Your task to perform on an android device: Open Chrome and go to settings Image 0: 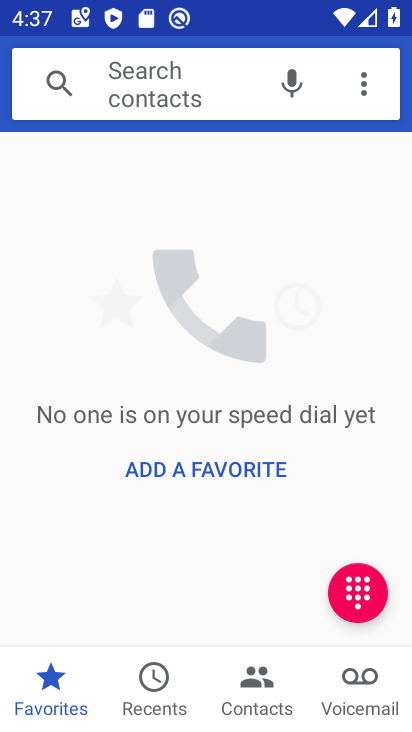
Step 0: press home button
Your task to perform on an android device: Open Chrome and go to settings Image 1: 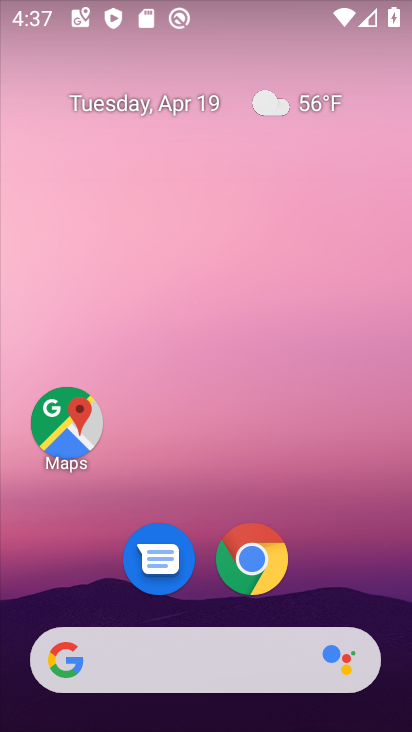
Step 1: click (251, 577)
Your task to perform on an android device: Open Chrome and go to settings Image 2: 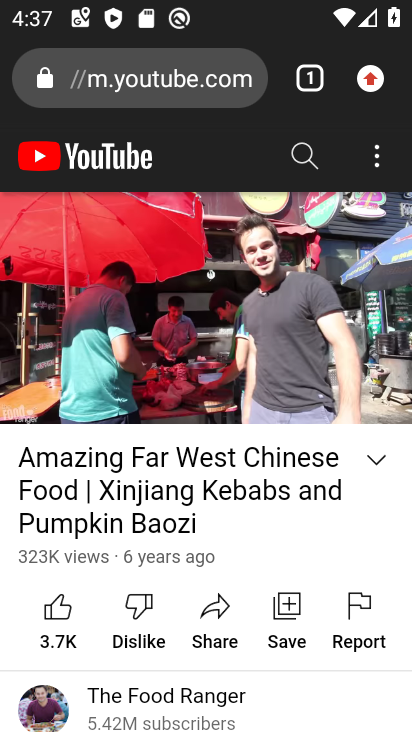
Step 2: press back button
Your task to perform on an android device: Open Chrome and go to settings Image 3: 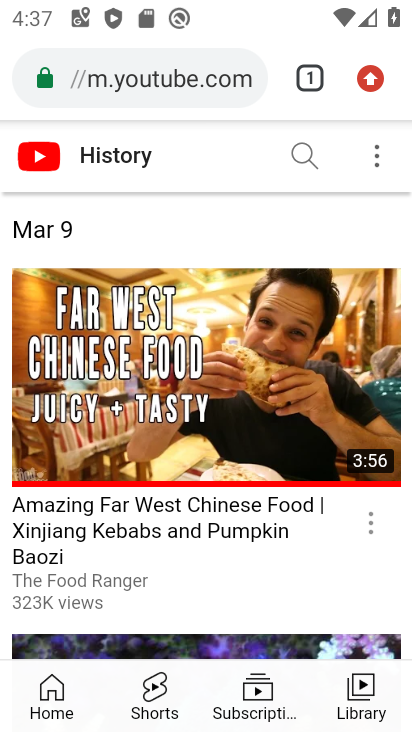
Step 3: click (374, 79)
Your task to perform on an android device: Open Chrome and go to settings Image 4: 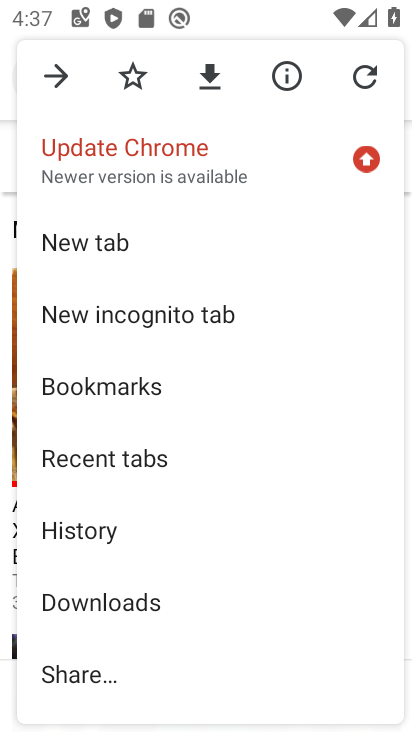
Step 4: drag from (259, 604) to (224, 267)
Your task to perform on an android device: Open Chrome and go to settings Image 5: 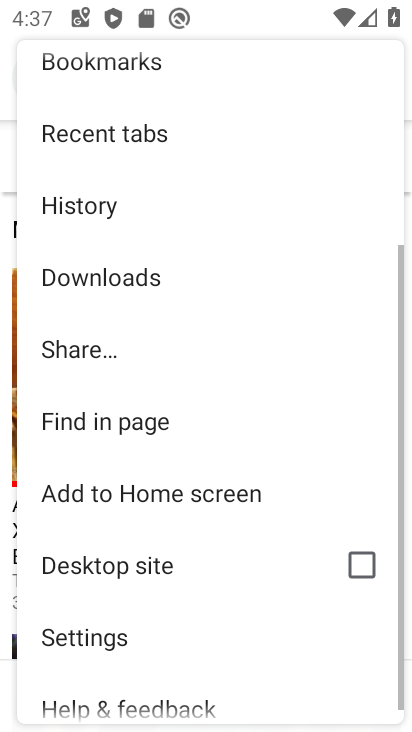
Step 5: click (77, 634)
Your task to perform on an android device: Open Chrome and go to settings Image 6: 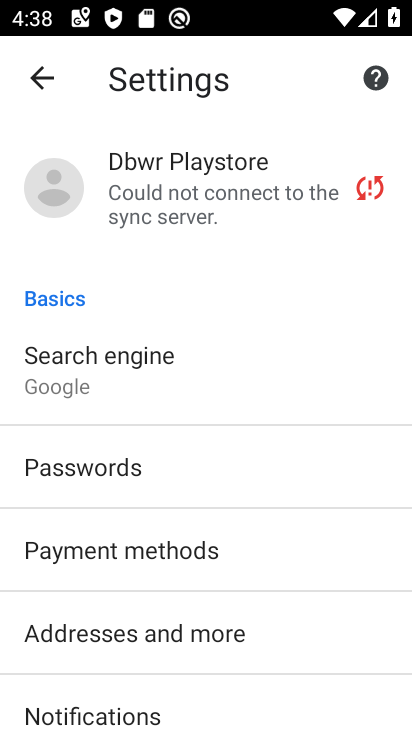
Step 6: task complete